Your task to perform on an android device: Open Maps and search for coffee Image 0: 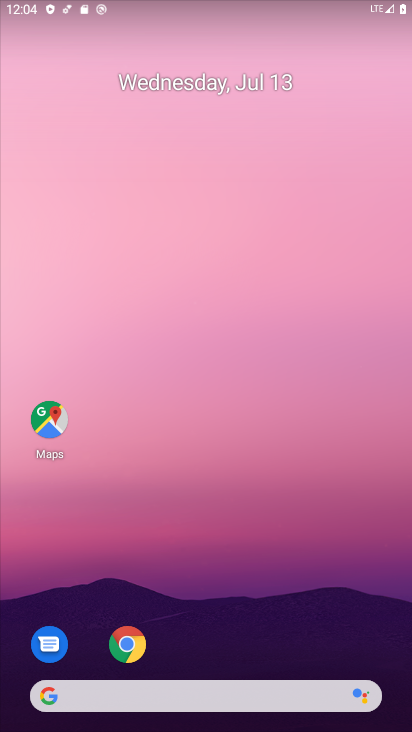
Step 0: drag from (223, 636) to (274, 136)
Your task to perform on an android device: Open Maps and search for coffee Image 1: 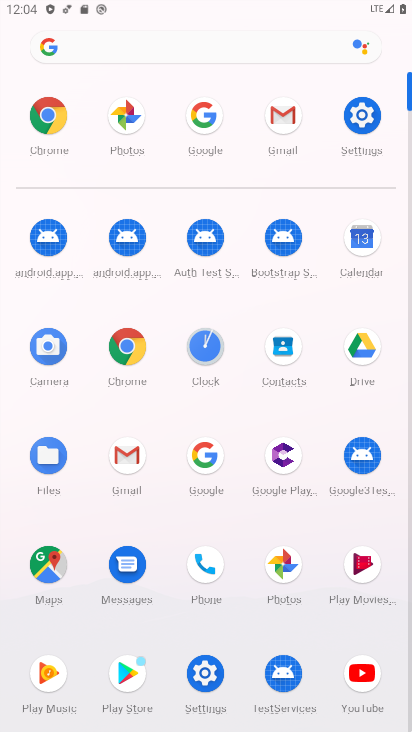
Step 1: click (44, 563)
Your task to perform on an android device: Open Maps and search for coffee Image 2: 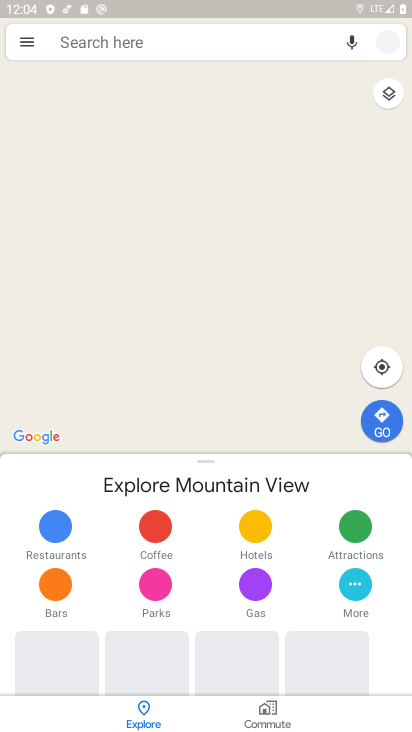
Step 2: click (152, 39)
Your task to perform on an android device: Open Maps and search for coffee Image 3: 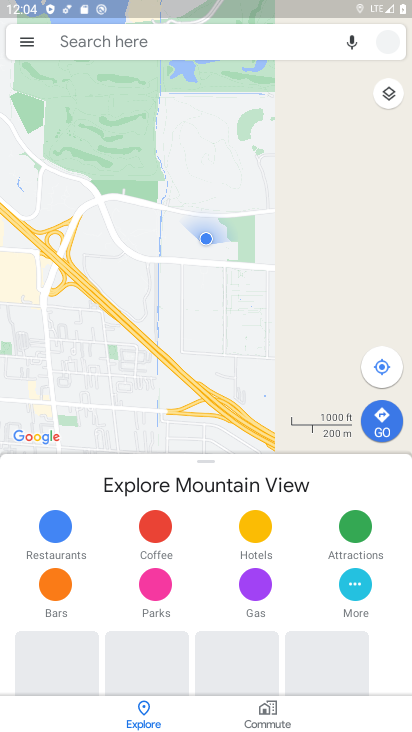
Step 3: click (203, 40)
Your task to perform on an android device: Open Maps and search for coffee Image 4: 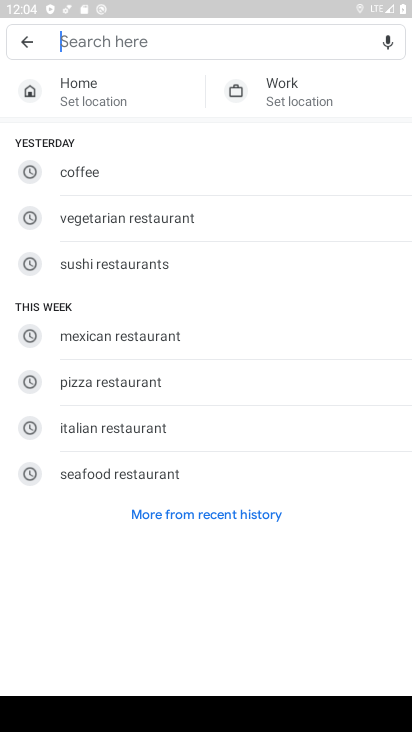
Step 4: click (125, 181)
Your task to perform on an android device: Open Maps and search for coffee Image 5: 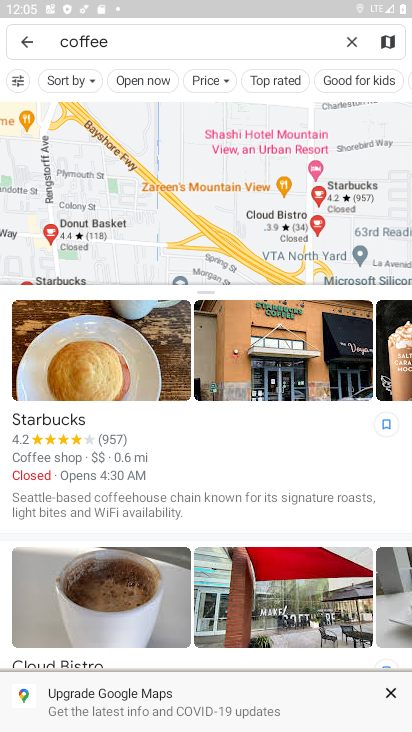
Step 5: task complete